Your task to perform on an android device: turn off location history Image 0: 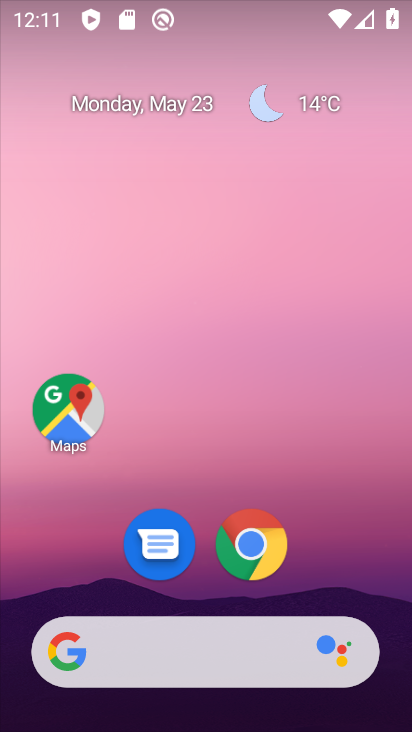
Step 0: drag from (342, 555) to (255, 95)
Your task to perform on an android device: turn off location history Image 1: 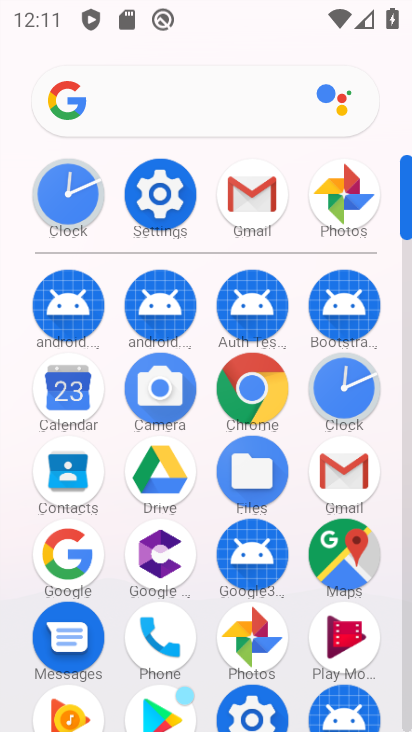
Step 1: click (168, 184)
Your task to perform on an android device: turn off location history Image 2: 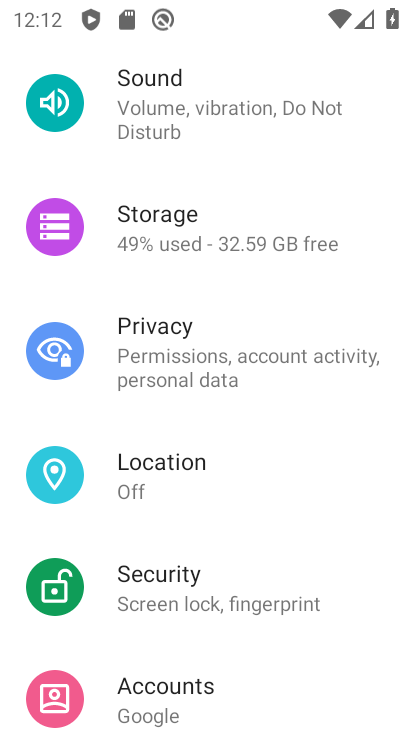
Step 2: click (171, 490)
Your task to perform on an android device: turn off location history Image 3: 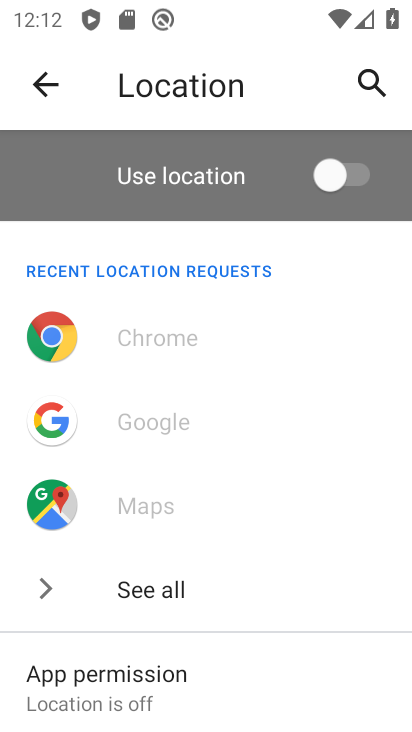
Step 3: drag from (299, 574) to (338, 31)
Your task to perform on an android device: turn off location history Image 4: 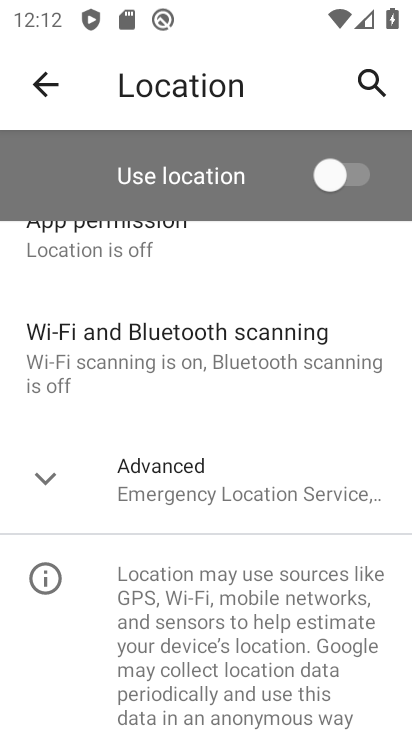
Step 4: click (221, 487)
Your task to perform on an android device: turn off location history Image 5: 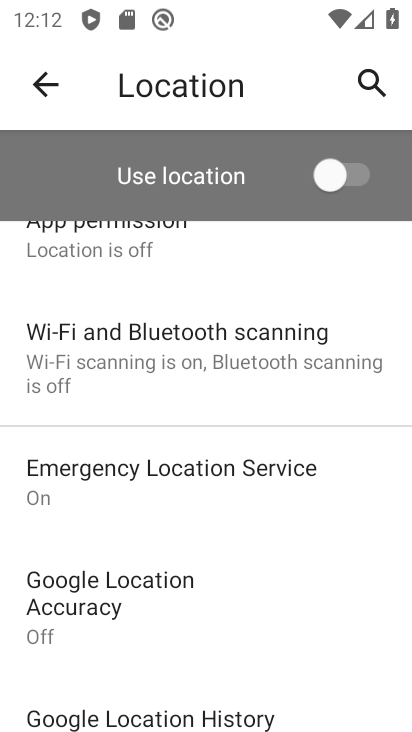
Step 5: drag from (225, 634) to (212, 224)
Your task to perform on an android device: turn off location history Image 6: 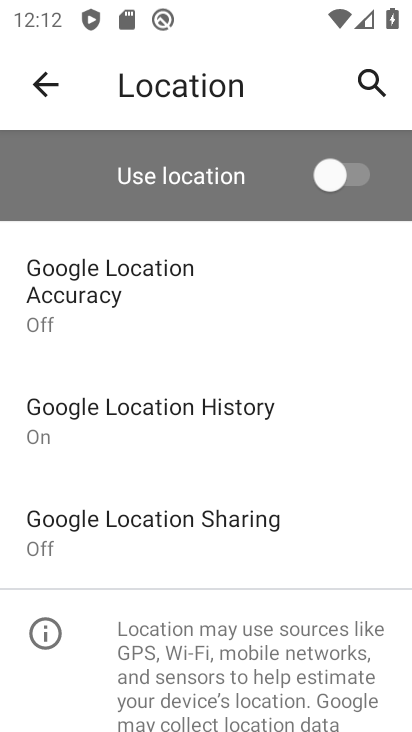
Step 6: click (219, 418)
Your task to perform on an android device: turn off location history Image 7: 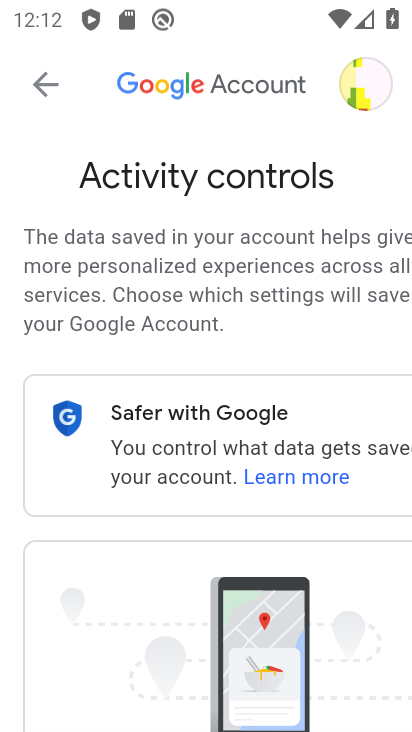
Step 7: drag from (329, 522) to (265, 137)
Your task to perform on an android device: turn off location history Image 8: 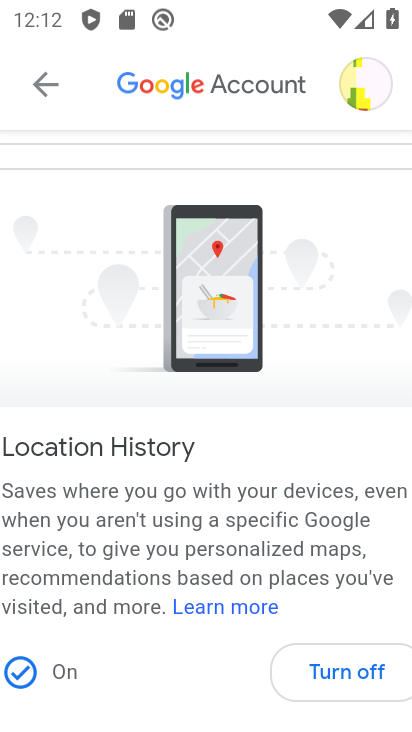
Step 8: click (316, 669)
Your task to perform on an android device: turn off location history Image 9: 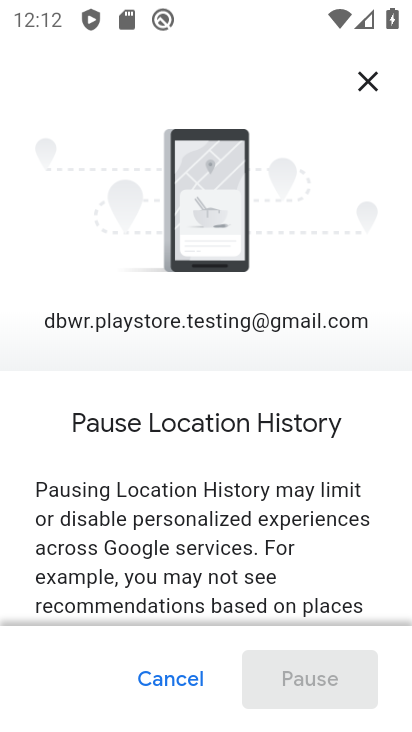
Step 9: drag from (289, 534) to (273, 57)
Your task to perform on an android device: turn off location history Image 10: 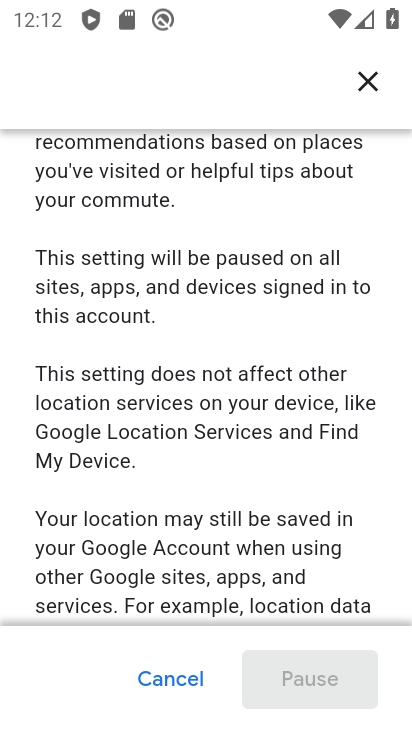
Step 10: drag from (279, 540) to (282, 84)
Your task to perform on an android device: turn off location history Image 11: 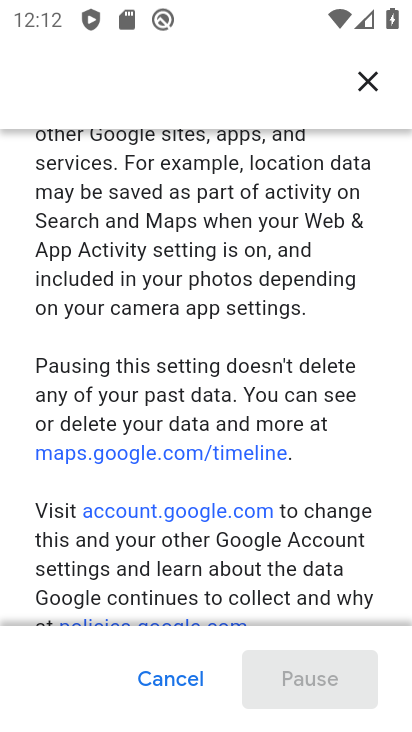
Step 11: drag from (363, 534) to (297, 136)
Your task to perform on an android device: turn off location history Image 12: 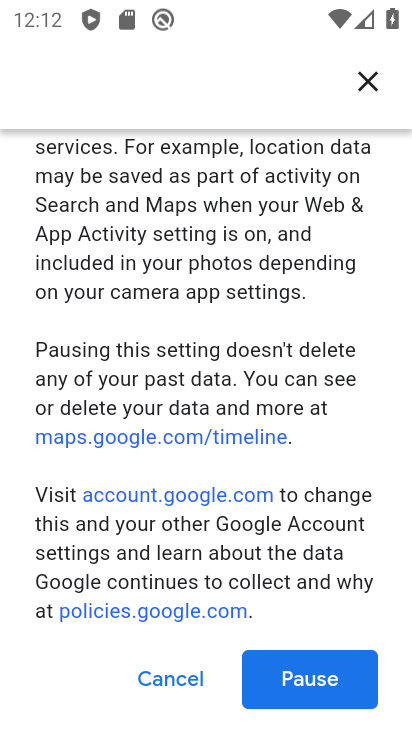
Step 12: click (319, 676)
Your task to perform on an android device: turn off location history Image 13: 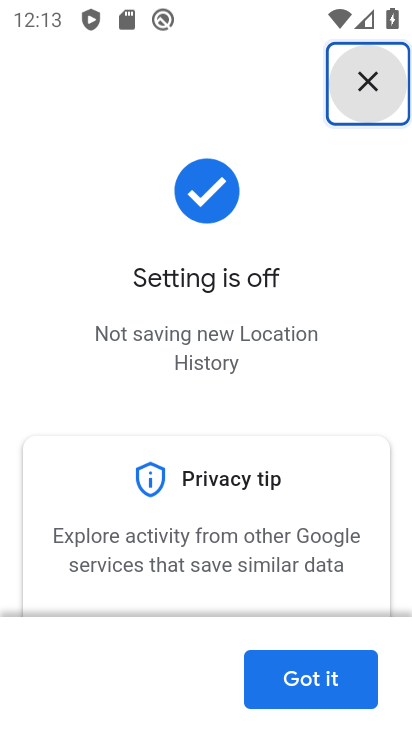
Step 13: task complete